Your task to perform on an android device: Turn off the flashlight Image 0: 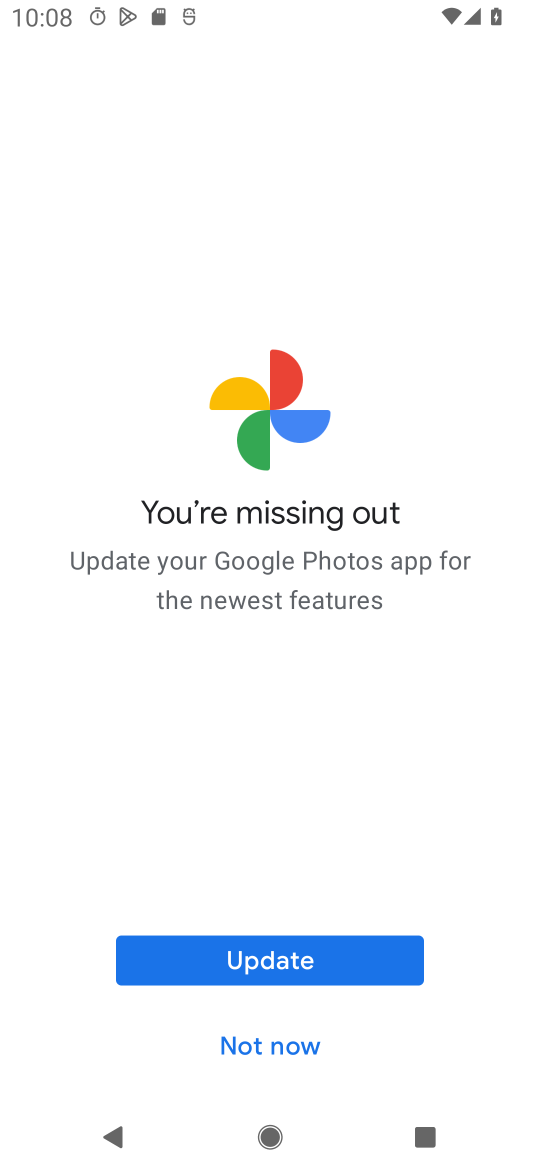
Step 0: press home button
Your task to perform on an android device: Turn off the flashlight Image 1: 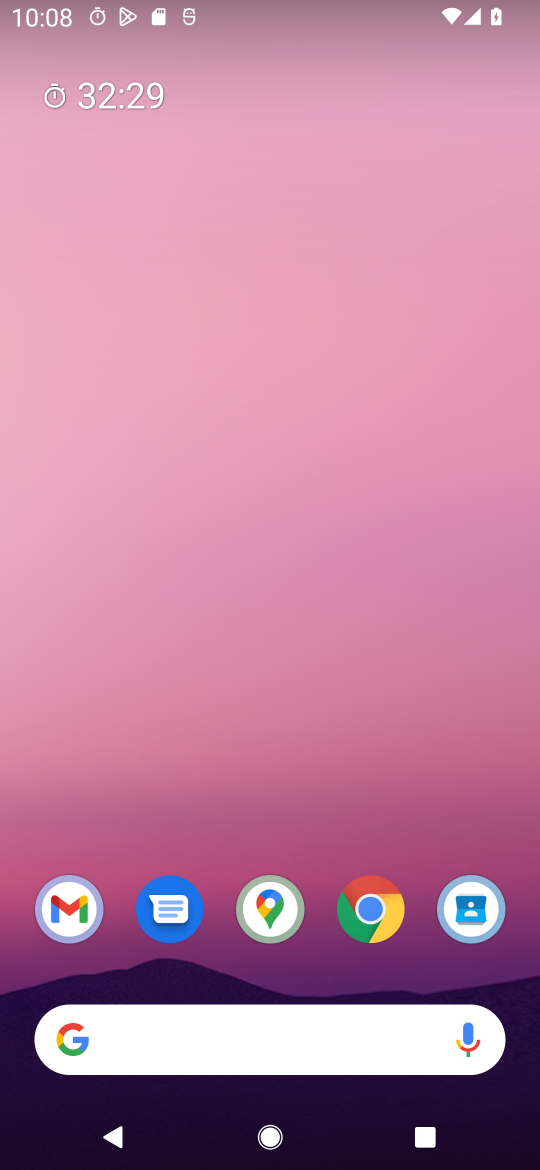
Step 1: drag from (295, 6) to (285, 703)
Your task to perform on an android device: Turn off the flashlight Image 2: 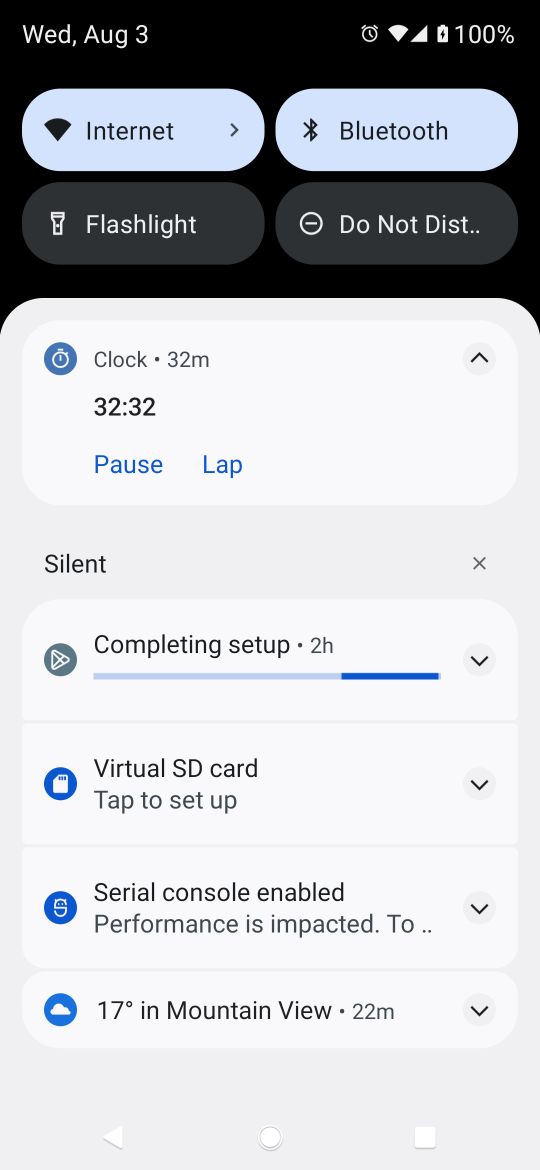
Step 2: drag from (266, 83) to (265, 731)
Your task to perform on an android device: Turn off the flashlight Image 3: 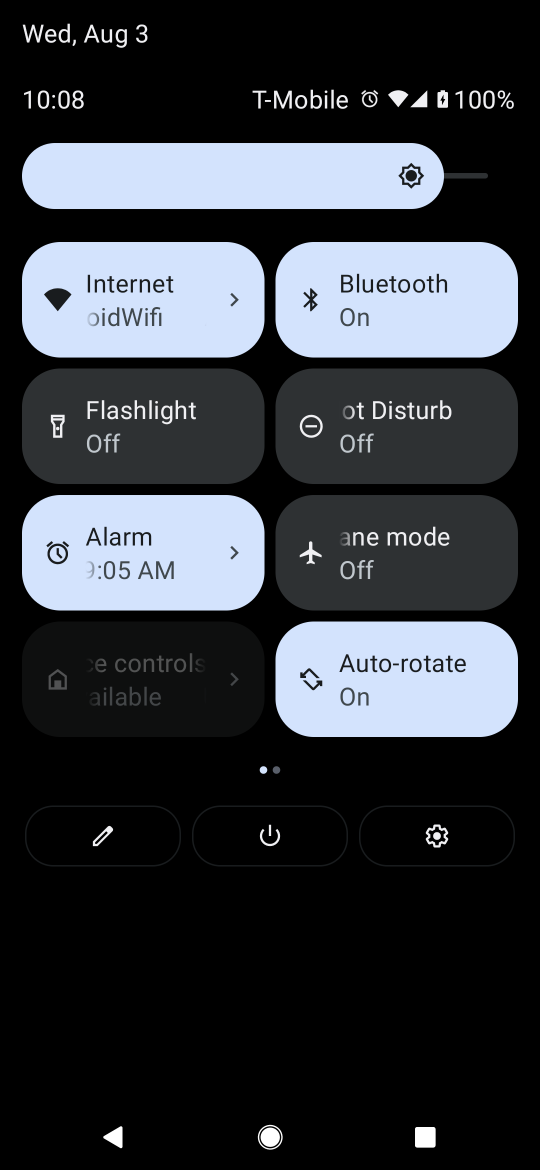
Step 3: click (128, 839)
Your task to perform on an android device: Turn off the flashlight Image 4: 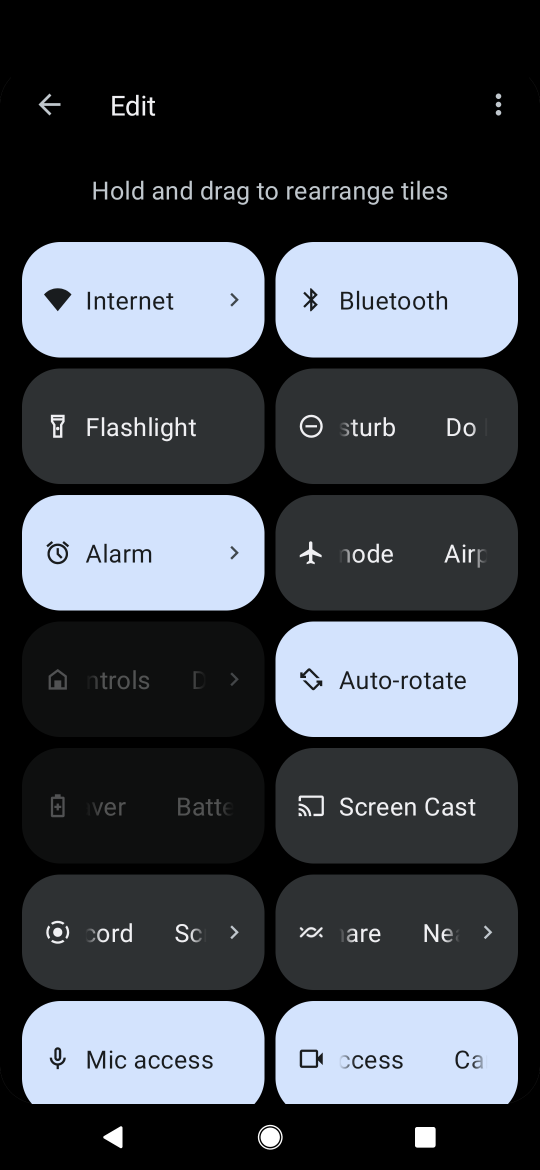
Step 4: click (107, 427)
Your task to perform on an android device: Turn off the flashlight Image 5: 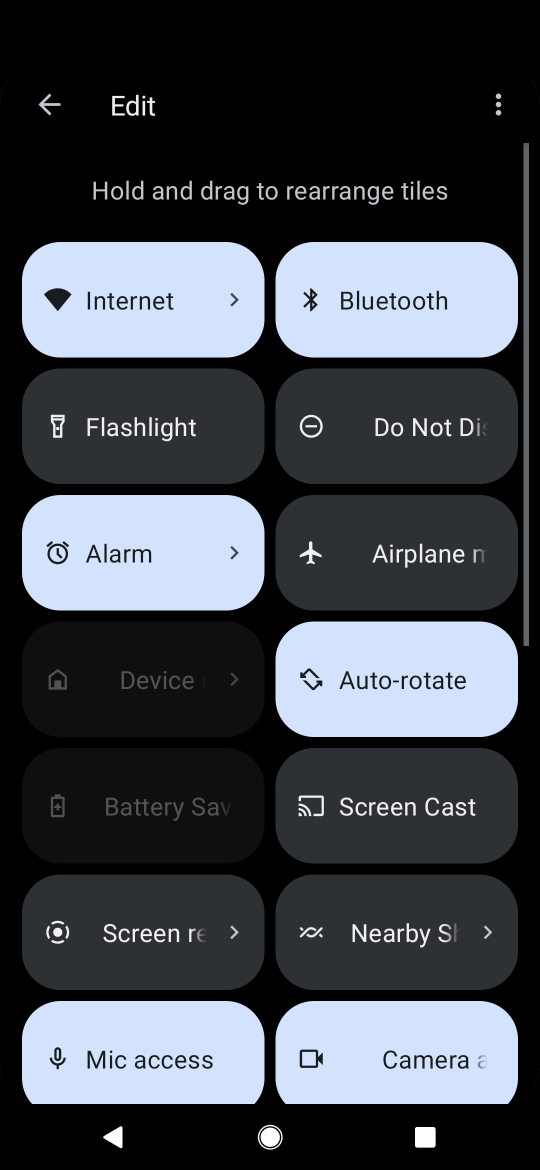
Step 5: click (107, 427)
Your task to perform on an android device: Turn off the flashlight Image 6: 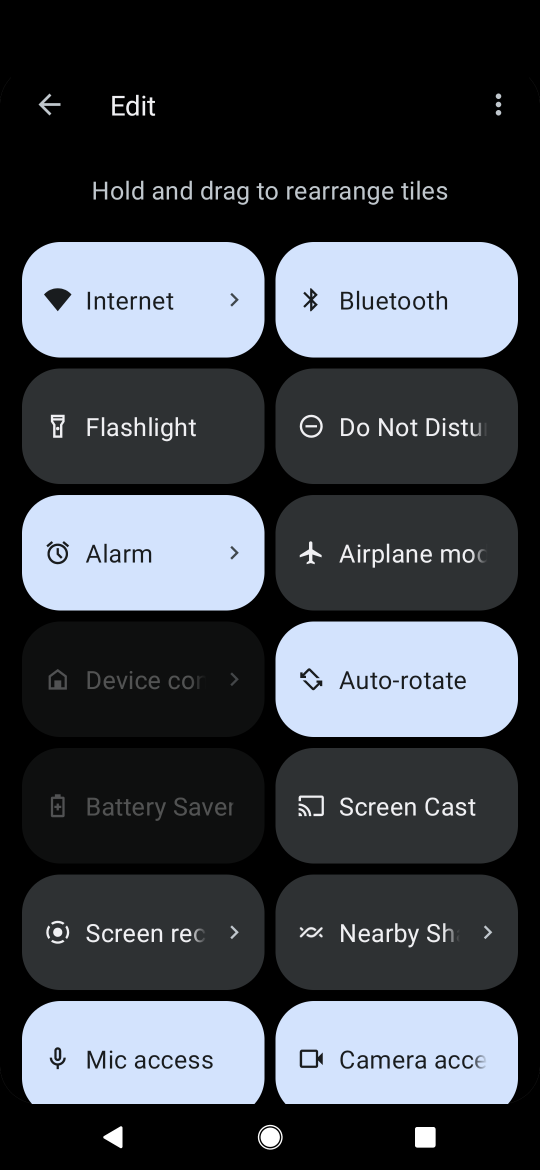
Step 6: click (173, 441)
Your task to perform on an android device: Turn off the flashlight Image 7: 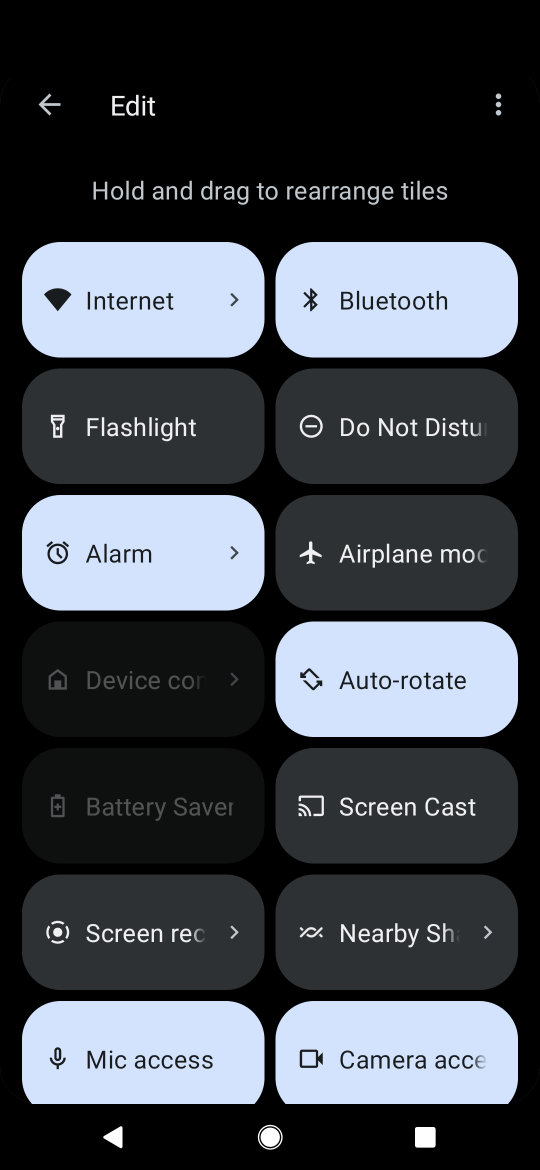
Step 7: task complete